Your task to perform on an android device: change alarm snooze length Image 0: 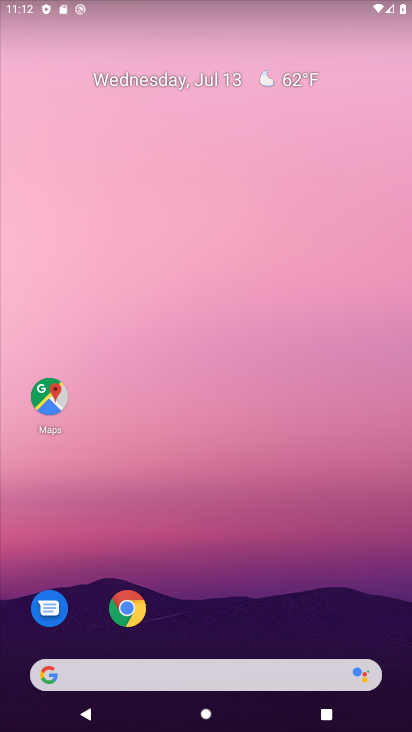
Step 0: drag from (226, 721) to (225, 272)
Your task to perform on an android device: change alarm snooze length Image 1: 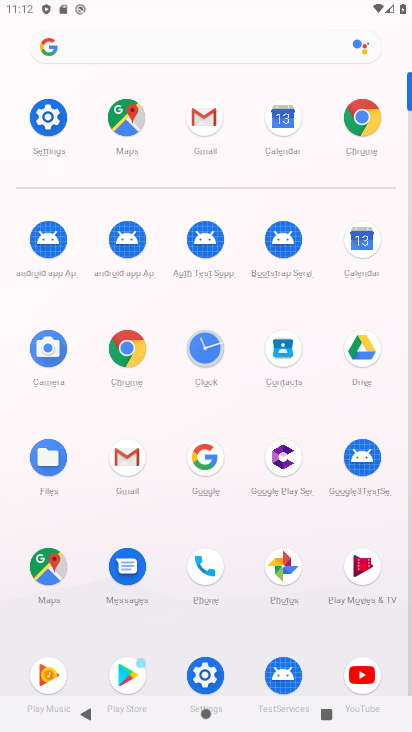
Step 1: click (207, 357)
Your task to perform on an android device: change alarm snooze length Image 2: 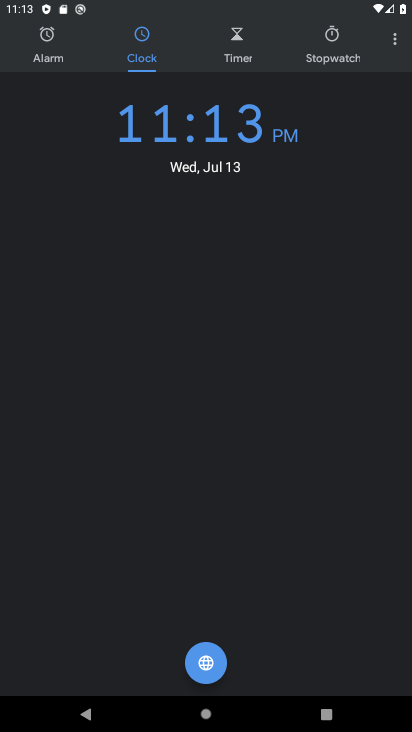
Step 2: click (396, 46)
Your task to perform on an android device: change alarm snooze length Image 3: 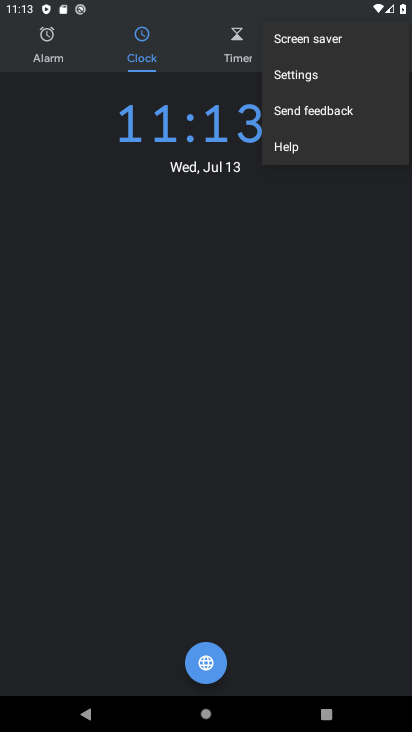
Step 3: click (303, 72)
Your task to perform on an android device: change alarm snooze length Image 4: 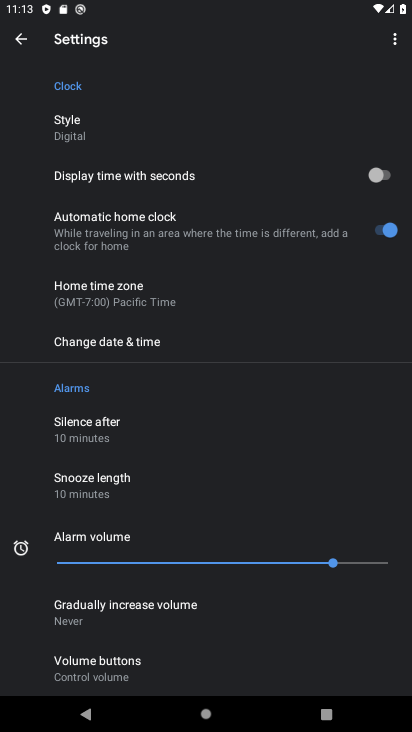
Step 4: click (91, 478)
Your task to perform on an android device: change alarm snooze length Image 5: 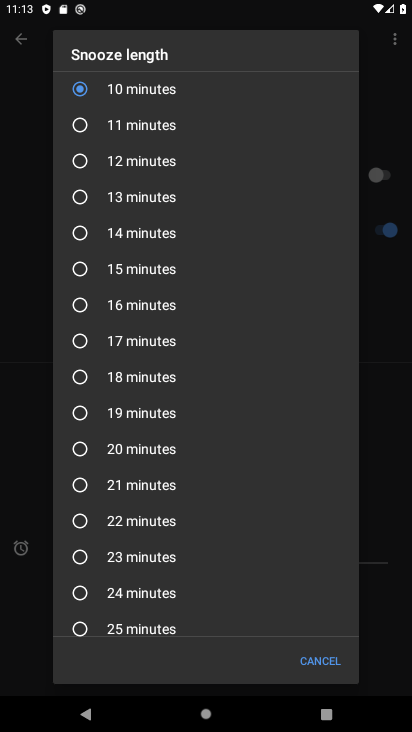
Step 5: click (80, 450)
Your task to perform on an android device: change alarm snooze length Image 6: 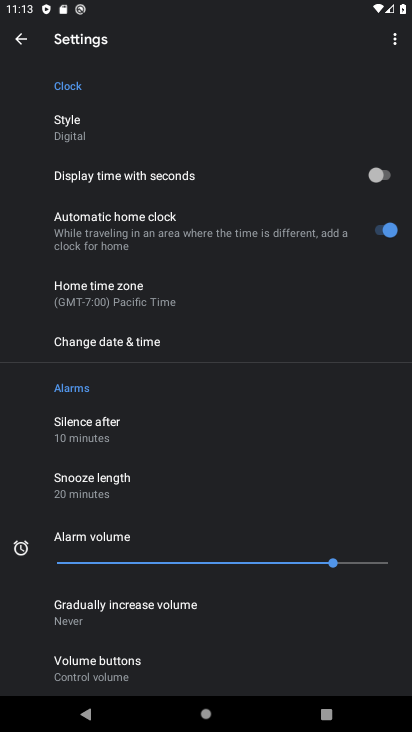
Step 6: task complete